Your task to perform on an android device: Search for energizer triple a on bestbuy.com, select the first entry, add it to the cart, then select checkout. Image 0: 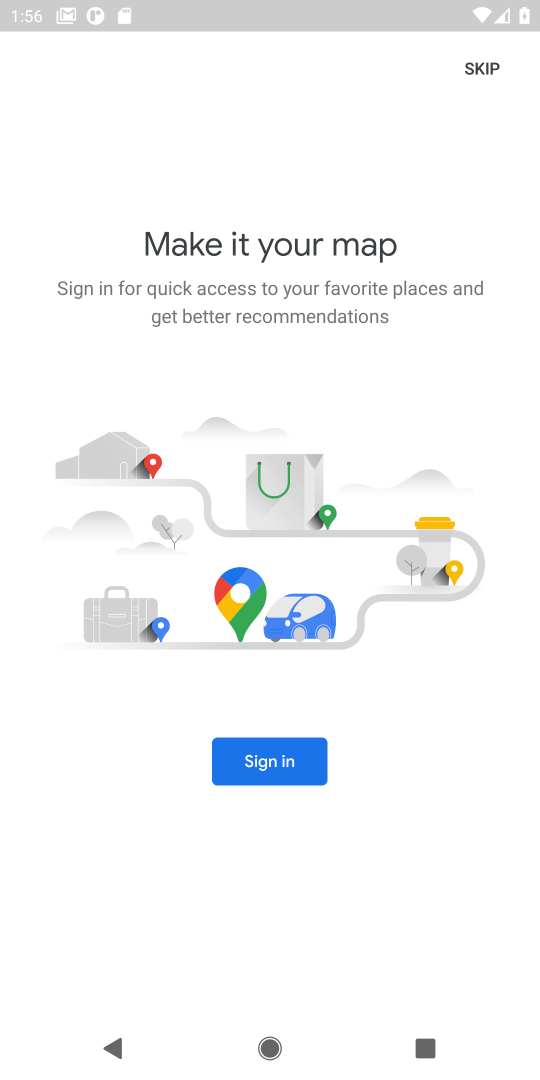
Step 0: press home button
Your task to perform on an android device: Search for energizer triple a on bestbuy.com, select the first entry, add it to the cart, then select checkout. Image 1: 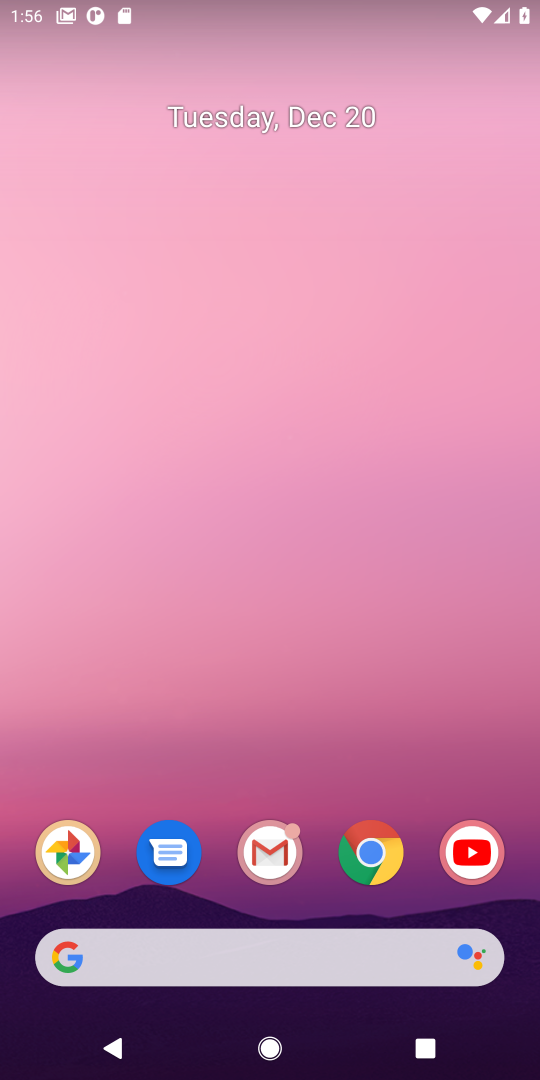
Step 1: click (367, 850)
Your task to perform on an android device: Search for energizer triple a on bestbuy.com, select the first entry, add it to the cart, then select checkout. Image 2: 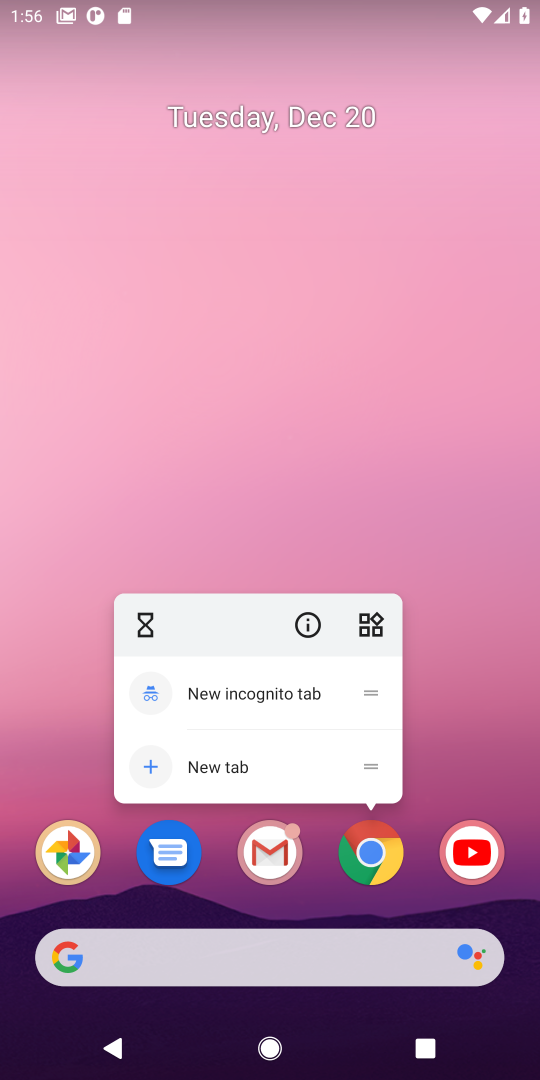
Step 2: click (369, 863)
Your task to perform on an android device: Search for energizer triple a on bestbuy.com, select the first entry, add it to the cart, then select checkout. Image 3: 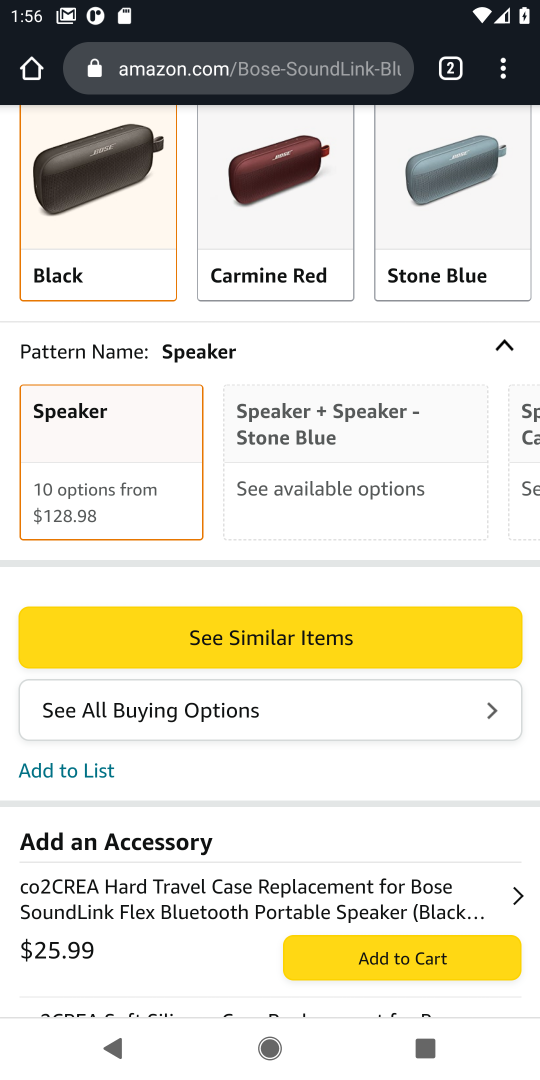
Step 3: click (197, 77)
Your task to perform on an android device: Search for energizer triple a on bestbuy.com, select the first entry, add it to the cart, then select checkout. Image 4: 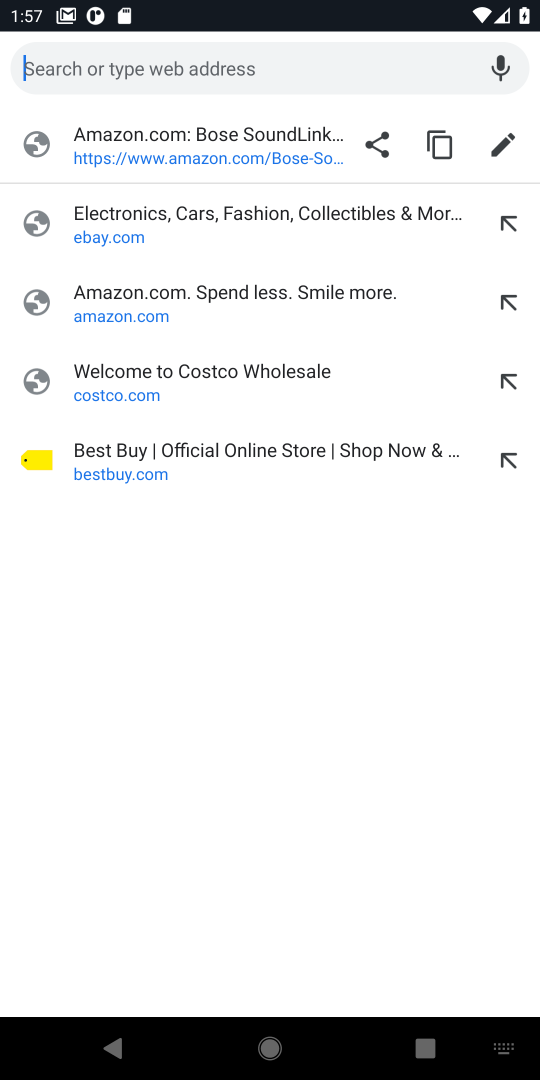
Step 4: click (106, 464)
Your task to perform on an android device: Search for energizer triple a on bestbuy.com, select the first entry, add it to the cart, then select checkout. Image 5: 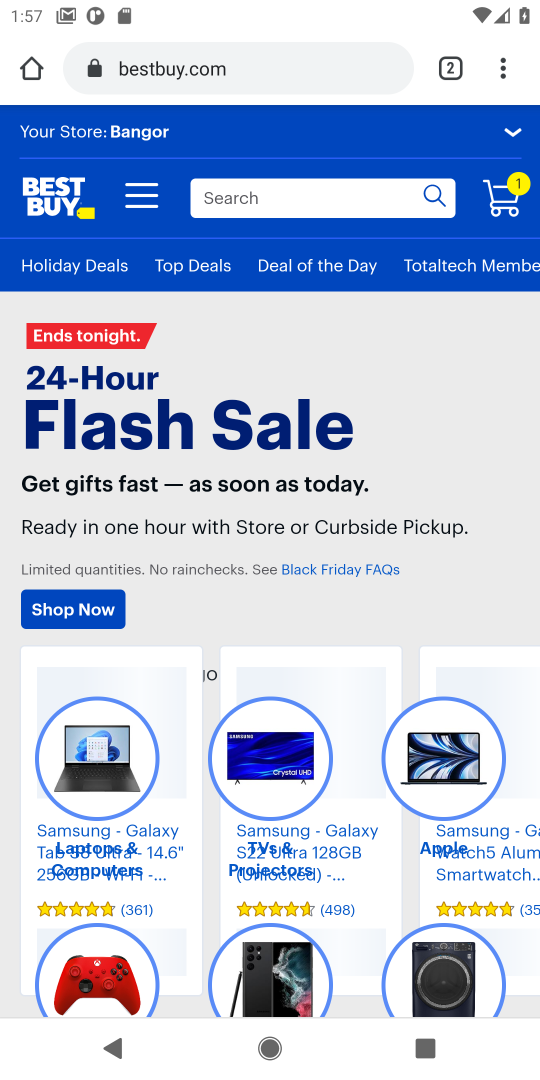
Step 5: click (342, 195)
Your task to perform on an android device: Search for energizer triple a on bestbuy.com, select the first entry, add it to the cart, then select checkout. Image 6: 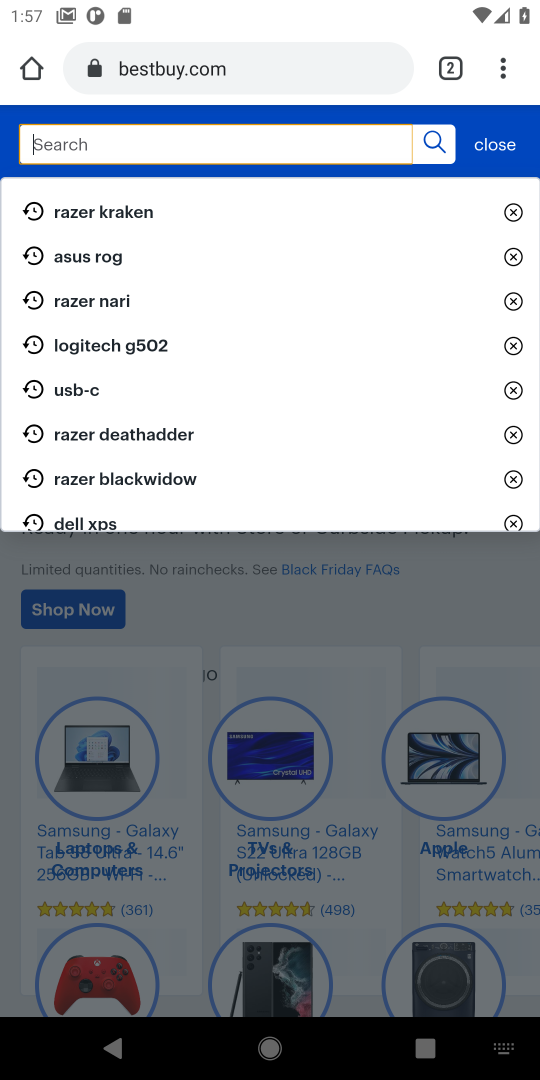
Step 6: type "energizer triple a"
Your task to perform on an android device: Search for energizer triple a on bestbuy.com, select the first entry, add it to the cart, then select checkout. Image 7: 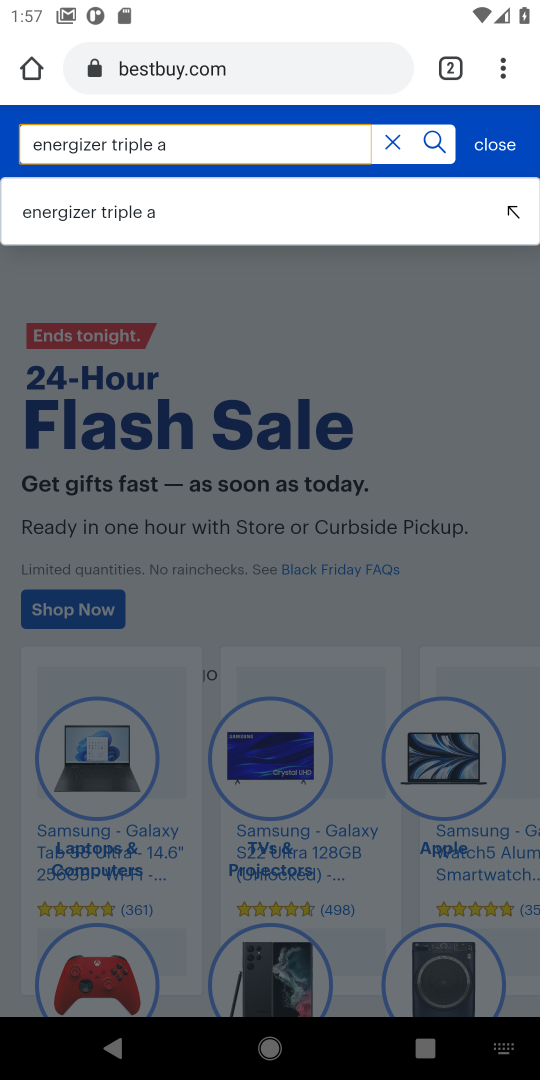
Step 7: click (125, 224)
Your task to perform on an android device: Search for energizer triple a on bestbuy.com, select the first entry, add it to the cart, then select checkout. Image 8: 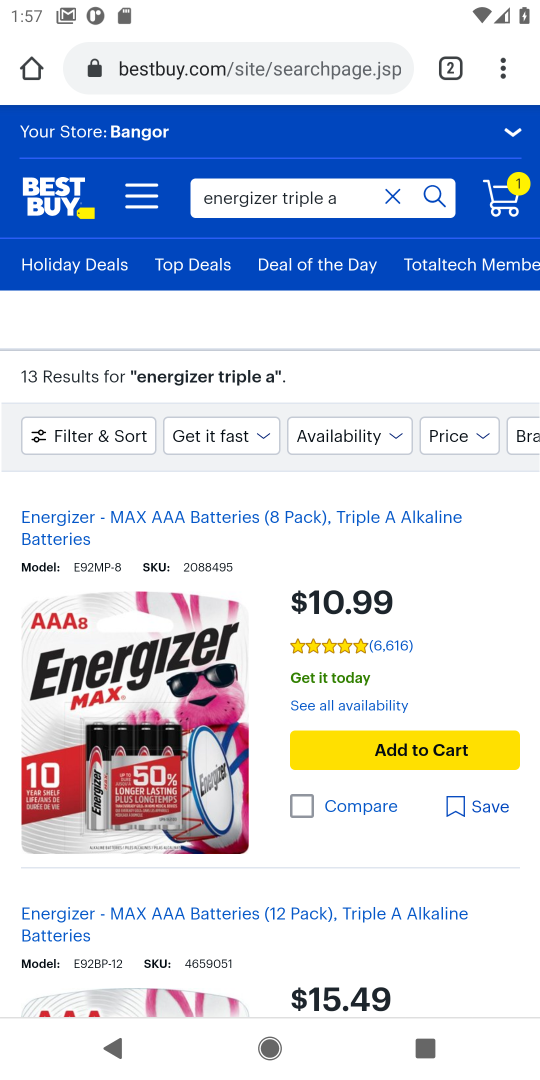
Step 8: click (168, 724)
Your task to perform on an android device: Search for energizer triple a on bestbuy.com, select the first entry, add it to the cart, then select checkout. Image 9: 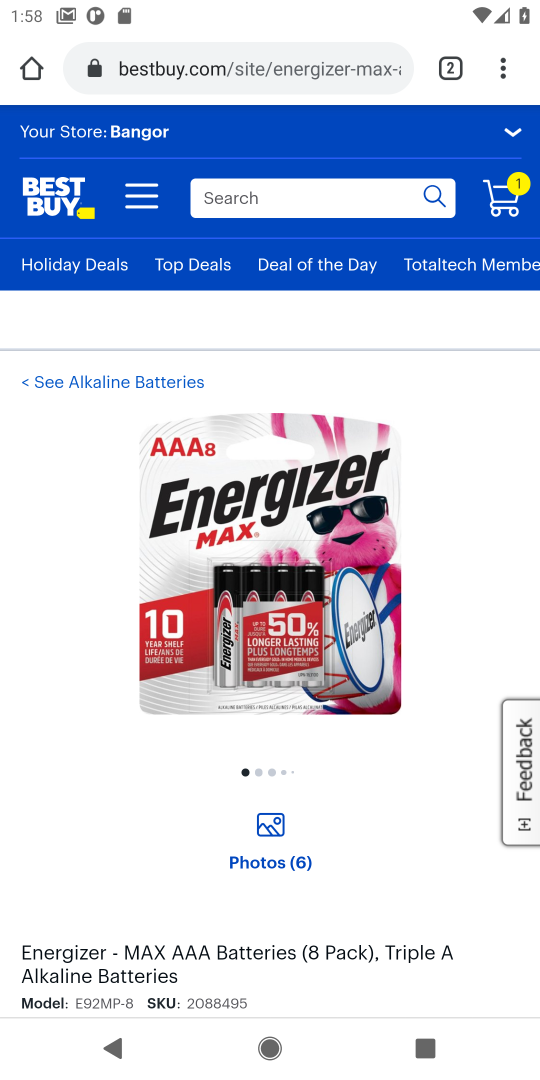
Step 9: drag from (243, 838) to (227, 407)
Your task to perform on an android device: Search for energizer triple a on bestbuy.com, select the first entry, add it to the cart, then select checkout. Image 10: 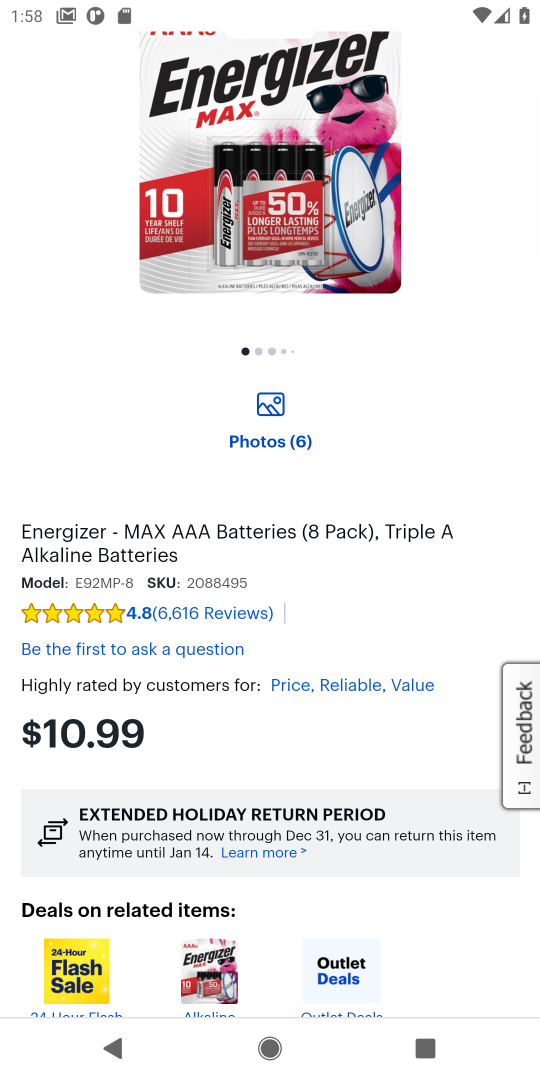
Step 10: drag from (266, 767) to (249, 243)
Your task to perform on an android device: Search for energizer triple a on bestbuy.com, select the first entry, add it to the cart, then select checkout. Image 11: 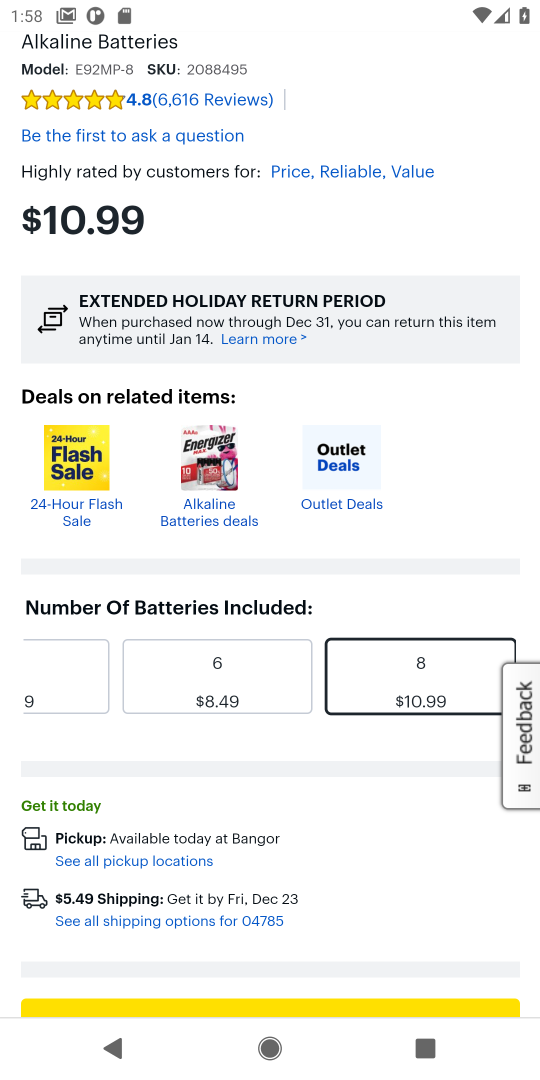
Step 11: drag from (256, 818) to (244, 382)
Your task to perform on an android device: Search for energizer triple a on bestbuy.com, select the first entry, add it to the cart, then select checkout. Image 12: 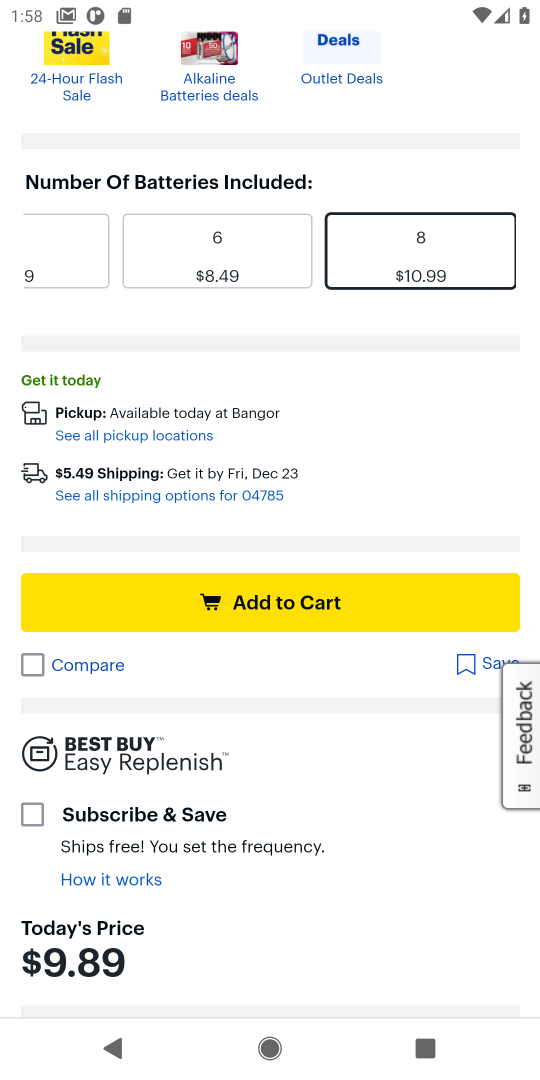
Step 12: click (255, 600)
Your task to perform on an android device: Search for energizer triple a on bestbuy.com, select the first entry, add it to the cart, then select checkout. Image 13: 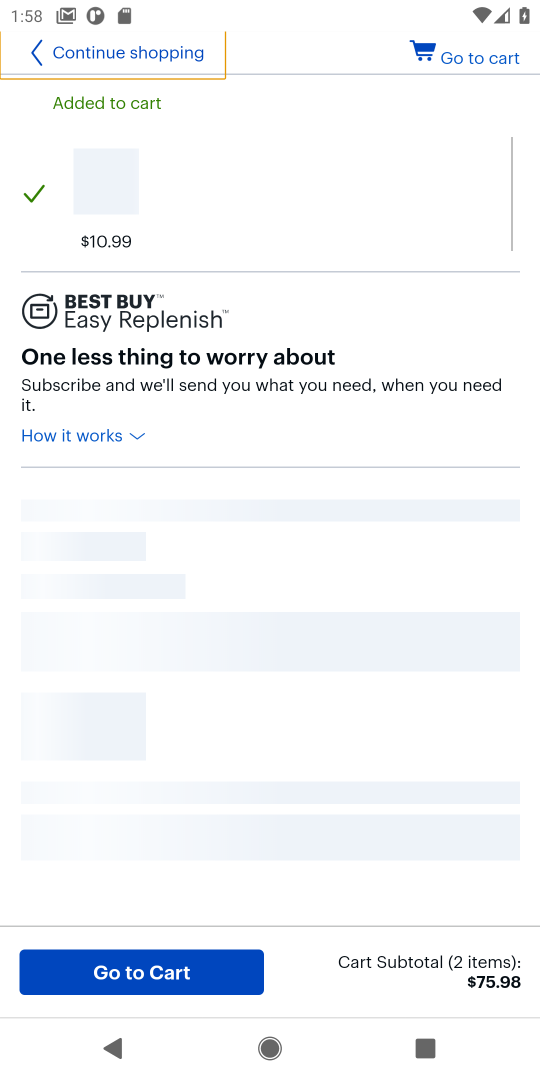
Step 13: click (498, 59)
Your task to perform on an android device: Search for energizer triple a on bestbuy.com, select the first entry, add it to the cart, then select checkout. Image 14: 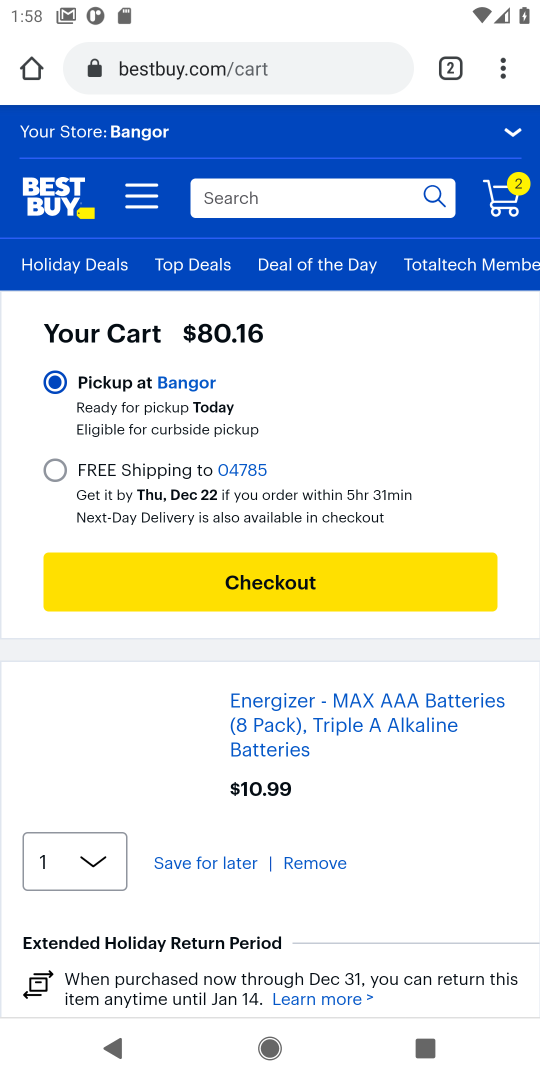
Step 14: click (244, 595)
Your task to perform on an android device: Search for energizer triple a on bestbuy.com, select the first entry, add it to the cart, then select checkout. Image 15: 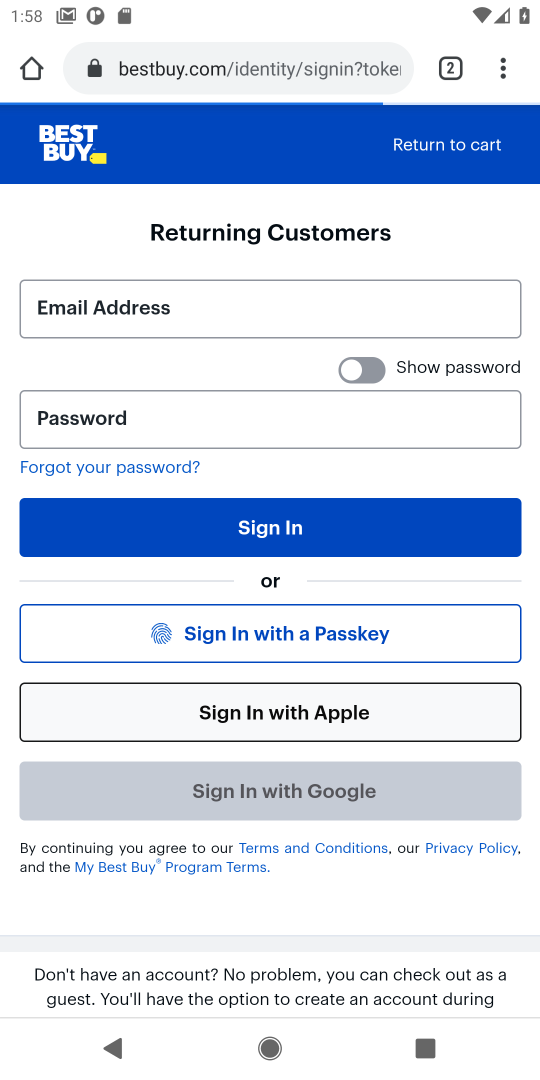
Step 15: task complete